Your task to perform on an android device: turn on the 24-hour format for clock Image 0: 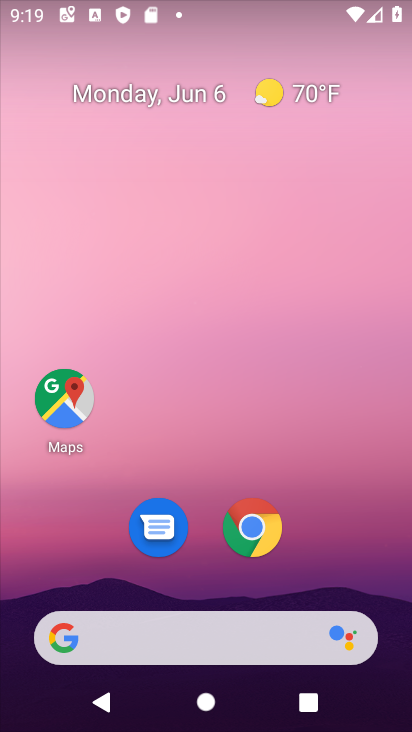
Step 0: drag from (248, 596) to (308, 242)
Your task to perform on an android device: turn on the 24-hour format for clock Image 1: 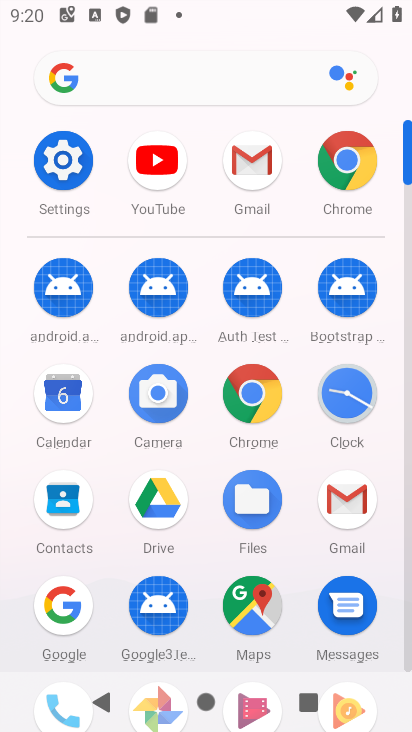
Step 1: click (350, 400)
Your task to perform on an android device: turn on the 24-hour format for clock Image 2: 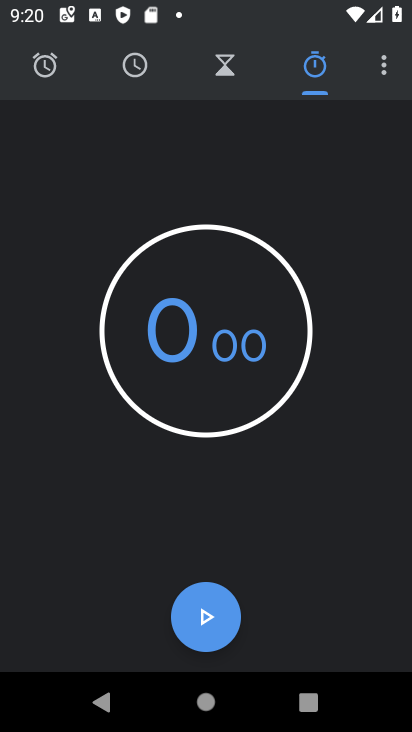
Step 2: click (385, 78)
Your task to perform on an android device: turn on the 24-hour format for clock Image 3: 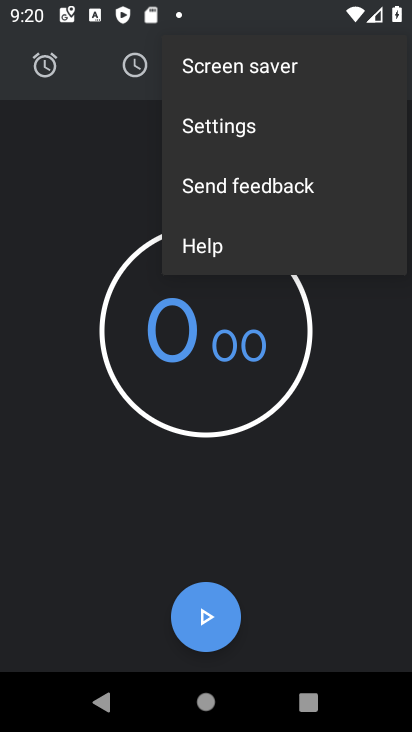
Step 3: click (241, 127)
Your task to perform on an android device: turn on the 24-hour format for clock Image 4: 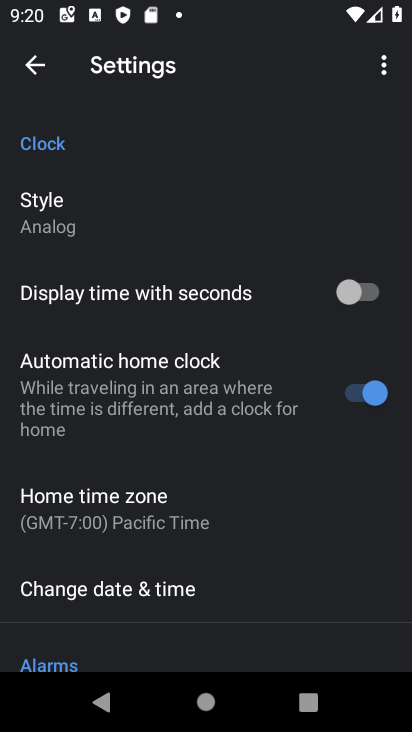
Step 4: click (211, 412)
Your task to perform on an android device: turn on the 24-hour format for clock Image 5: 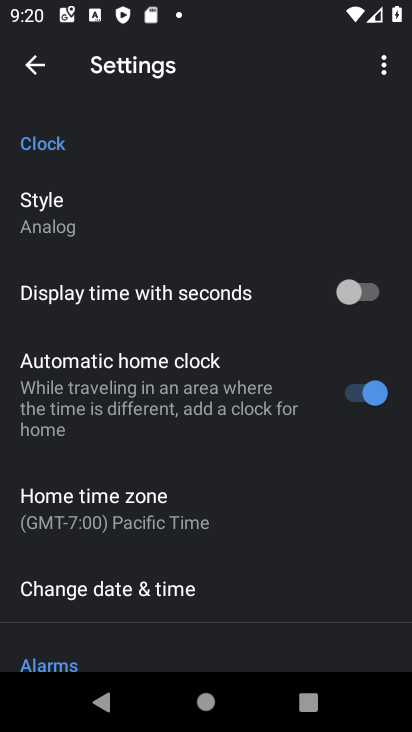
Step 5: click (188, 584)
Your task to perform on an android device: turn on the 24-hour format for clock Image 6: 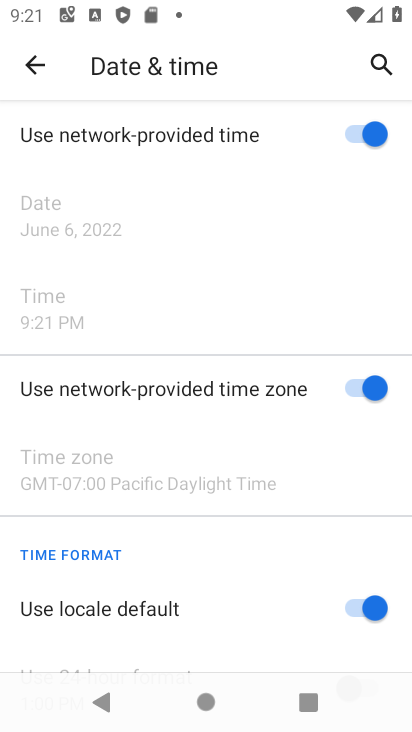
Step 6: task complete